Your task to perform on an android device: toggle pop-ups in chrome Image 0: 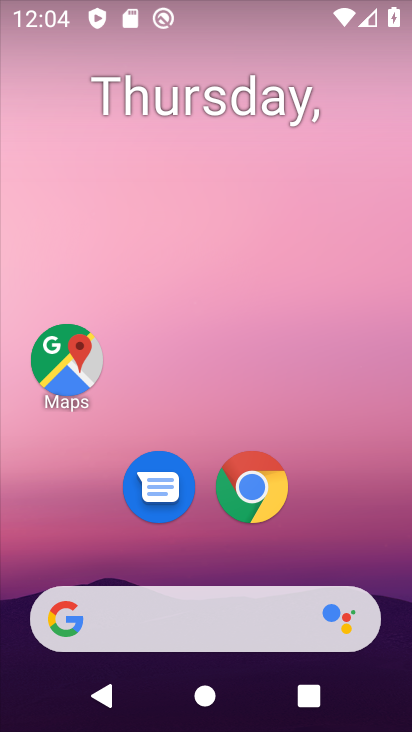
Step 0: click (286, 503)
Your task to perform on an android device: toggle pop-ups in chrome Image 1: 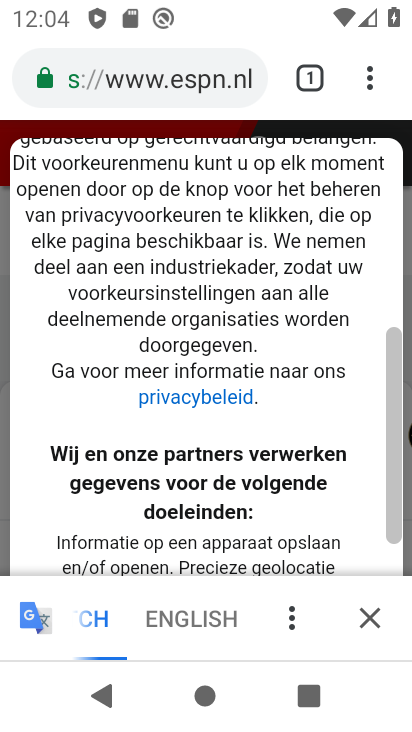
Step 1: drag from (373, 83) to (143, 543)
Your task to perform on an android device: toggle pop-ups in chrome Image 2: 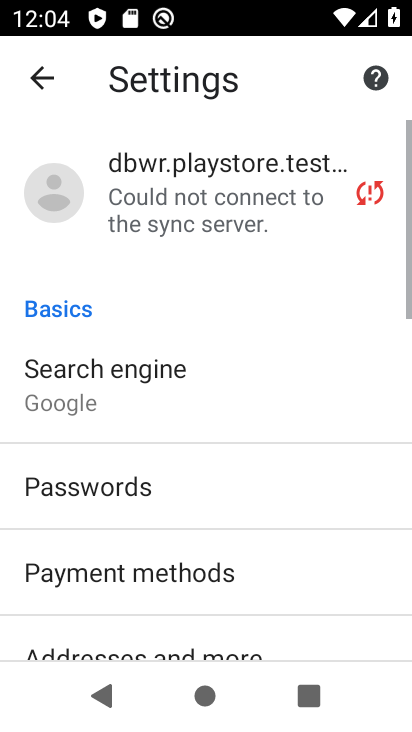
Step 2: drag from (198, 621) to (184, 75)
Your task to perform on an android device: toggle pop-ups in chrome Image 3: 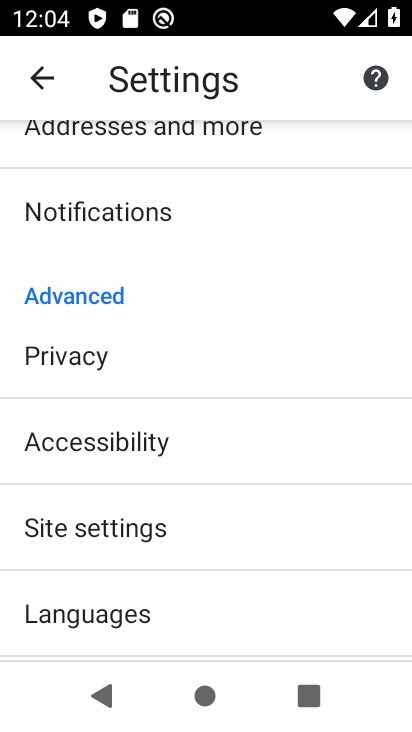
Step 3: click (160, 527)
Your task to perform on an android device: toggle pop-ups in chrome Image 4: 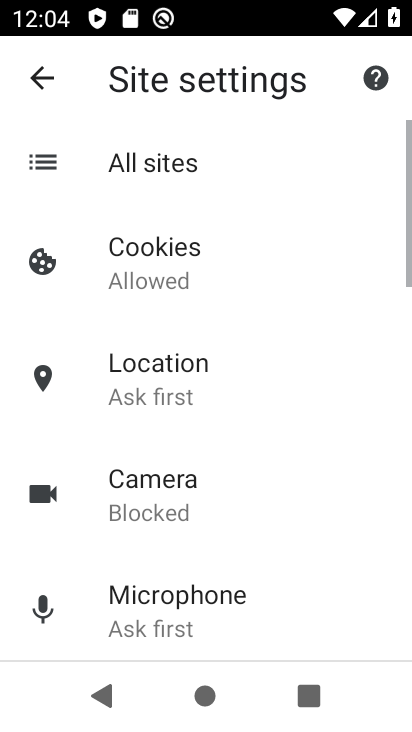
Step 4: drag from (234, 571) to (236, 219)
Your task to perform on an android device: toggle pop-ups in chrome Image 5: 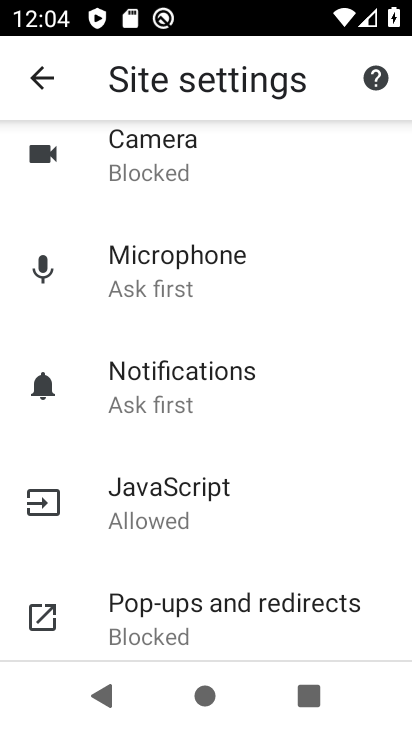
Step 5: drag from (206, 611) to (216, 356)
Your task to perform on an android device: toggle pop-ups in chrome Image 6: 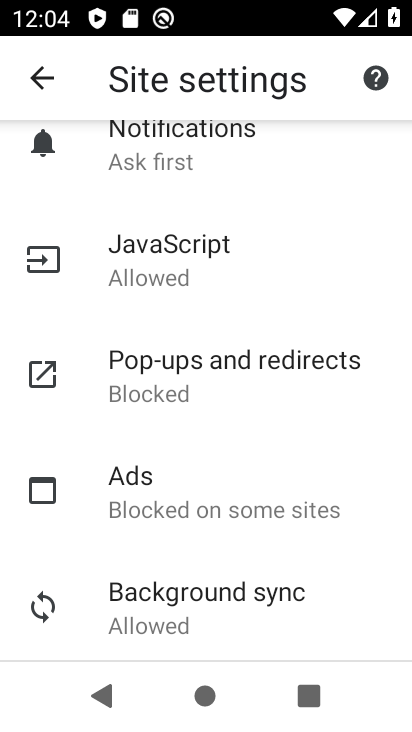
Step 6: click (241, 370)
Your task to perform on an android device: toggle pop-ups in chrome Image 7: 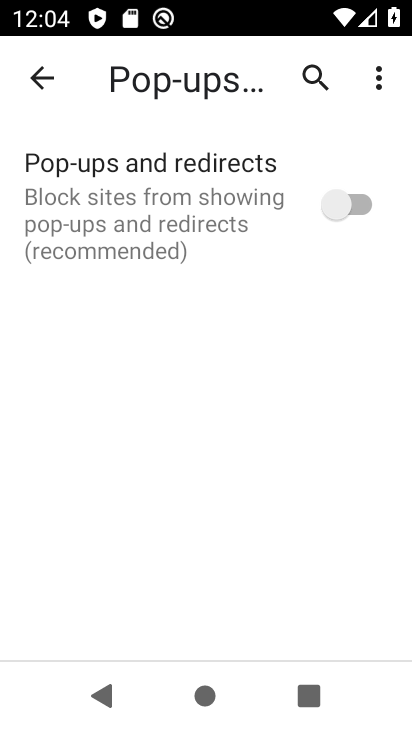
Step 7: click (190, 218)
Your task to perform on an android device: toggle pop-ups in chrome Image 8: 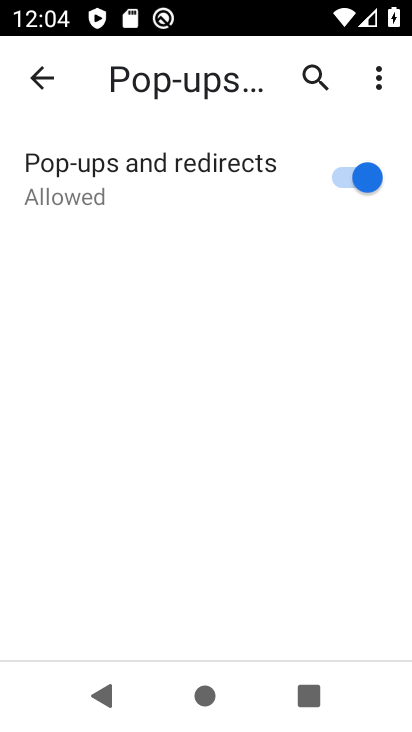
Step 8: task complete